Your task to perform on an android device: Go to settings Image 0: 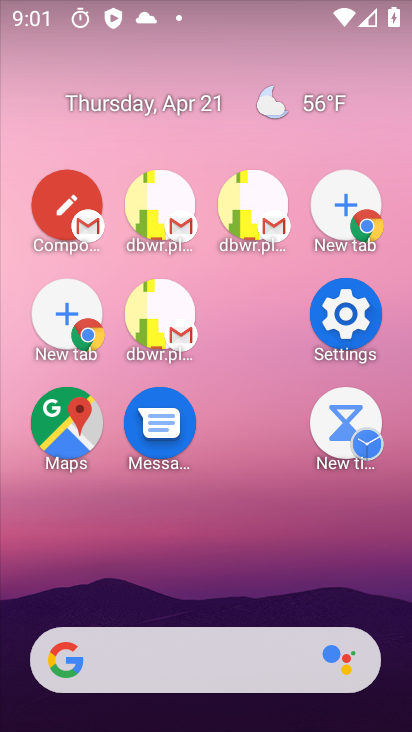
Step 0: drag from (239, 686) to (207, 189)
Your task to perform on an android device: Go to settings Image 1: 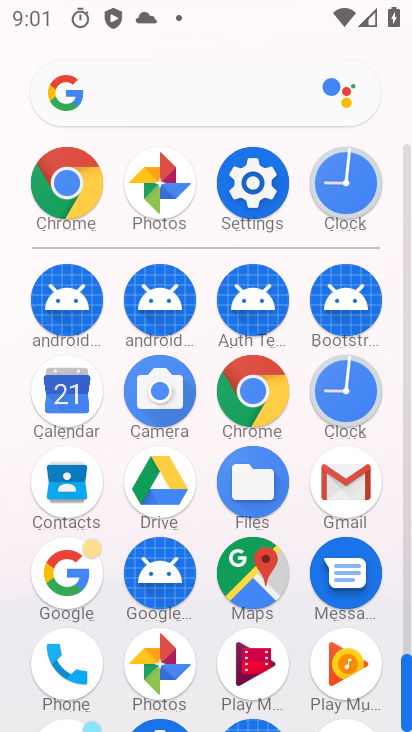
Step 1: click (251, 196)
Your task to perform on an android device: Go to settings Image 2: 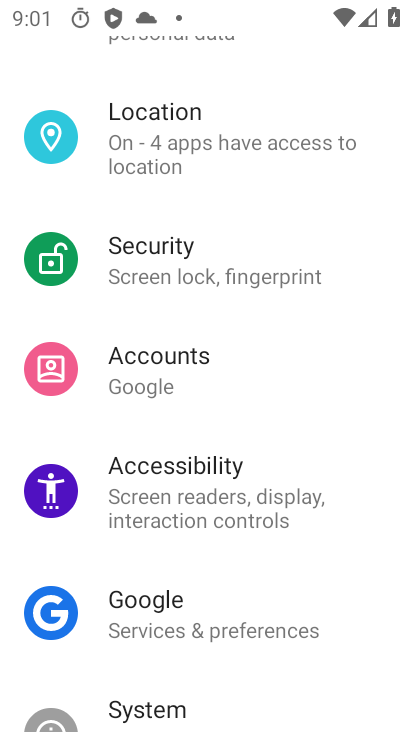
Step 2: task complete